Your task to perform on an android device: Go to accessibility settings Image 0: 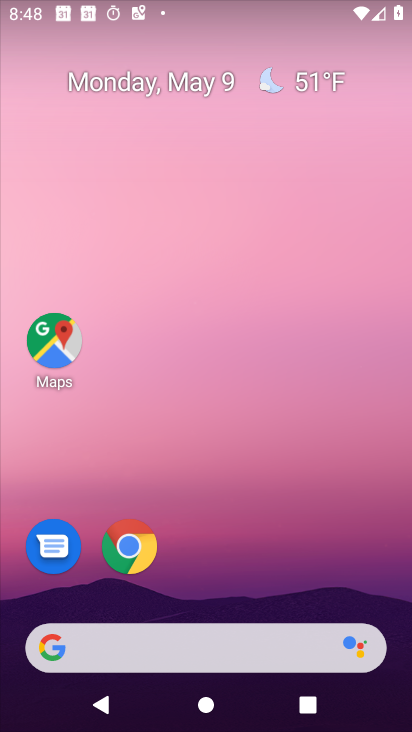
Step 0: drag from (242, 584) to (321, 145)
Your task to perform on an android device: Go to accessibility settings Image 1: 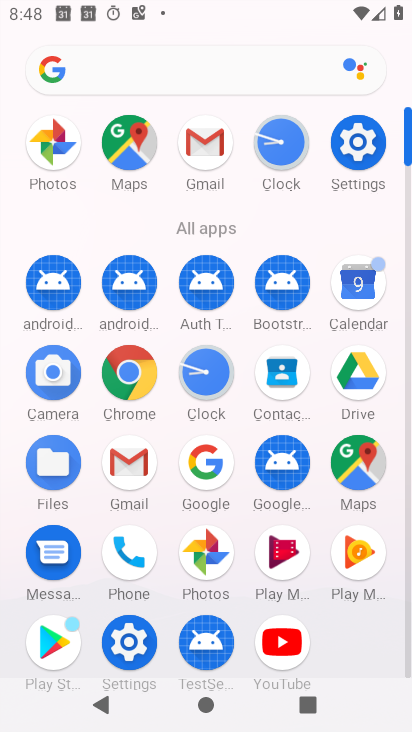
Step 1: click (354, 136)
Your task to perform on an android device: Go to accessibility settings Image 2: 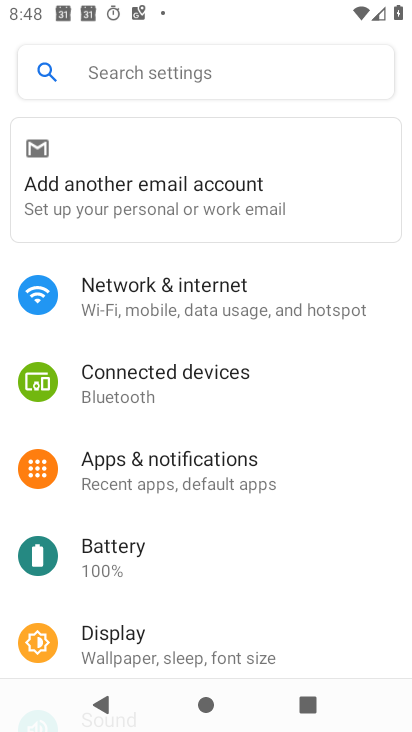
Step 2: drag from (241, 634) to (270, 179)
Your task to perform on an android device: Go to accessibility settings Image 3: 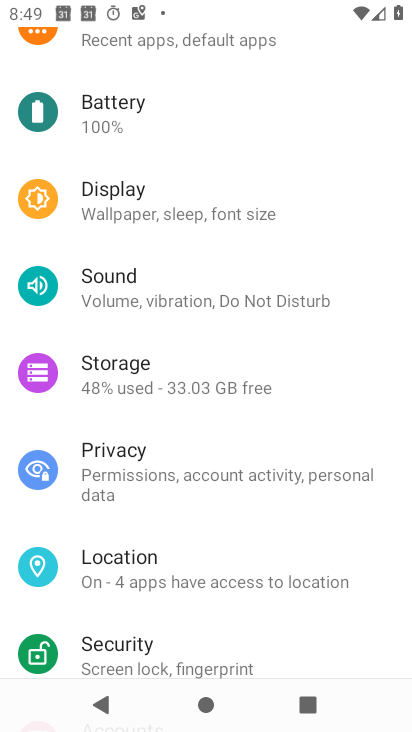
Step 3: drag from (378, 599) to (384, 251)
Your task to perform on an android device: Go to accessibility settings Image 4: 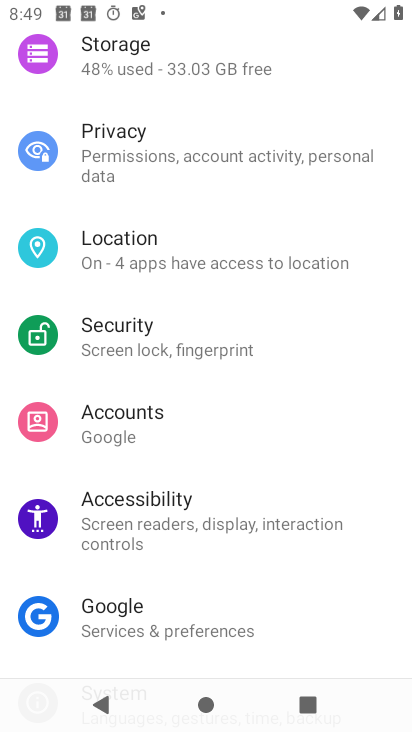
Step 4: click (86, 521)
Your task to perform on an android device: Go to accessibility settings Image 5: 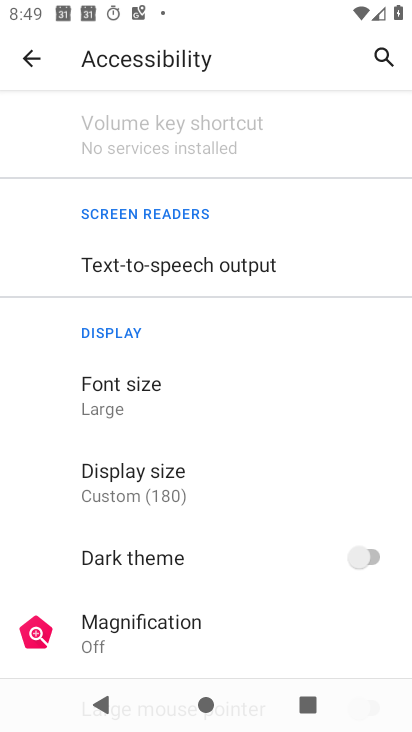
Step 5: task complete